Your task to perform on an android device: What is the speed of a tiger? Image 0: 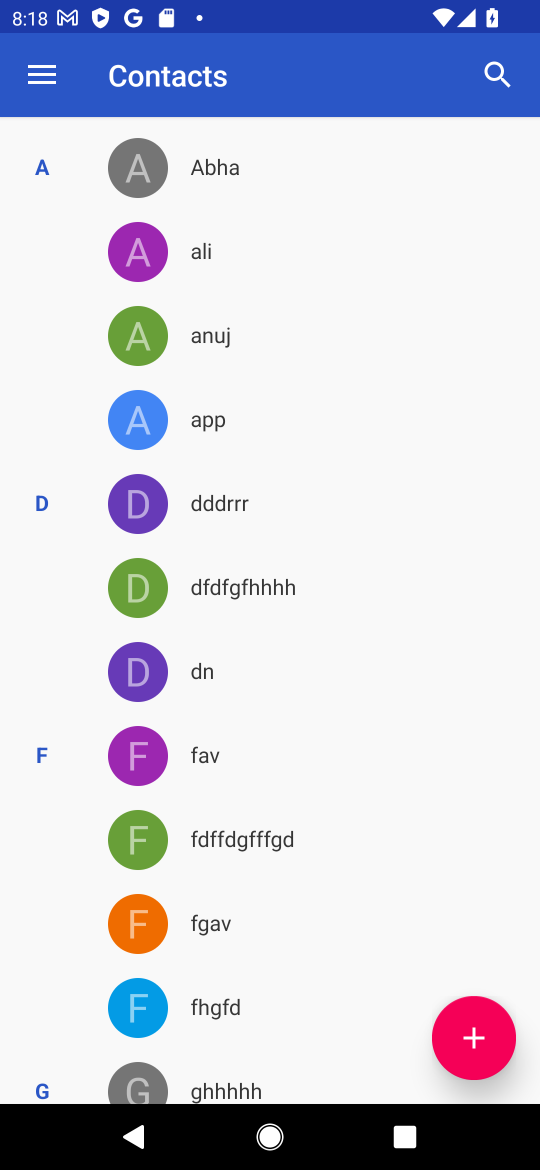
Step 0: press home button
Your task to perform on an android device: What is the speed of a tiger? Image 1: 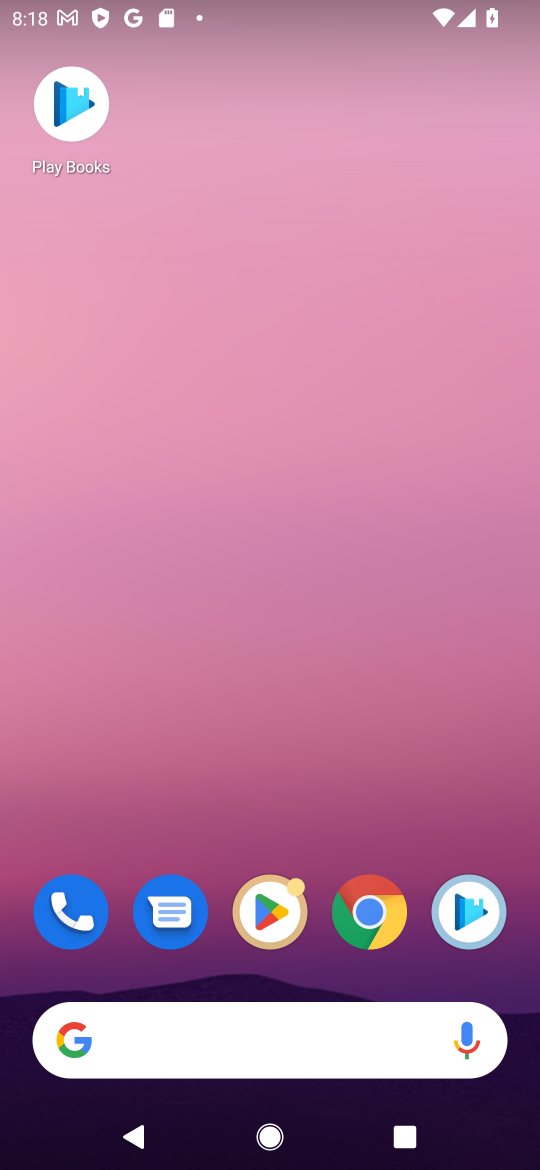
Step 1: click (363, 910)
Your task to perform on an android device: What is the speed of a tiger? Image 2: 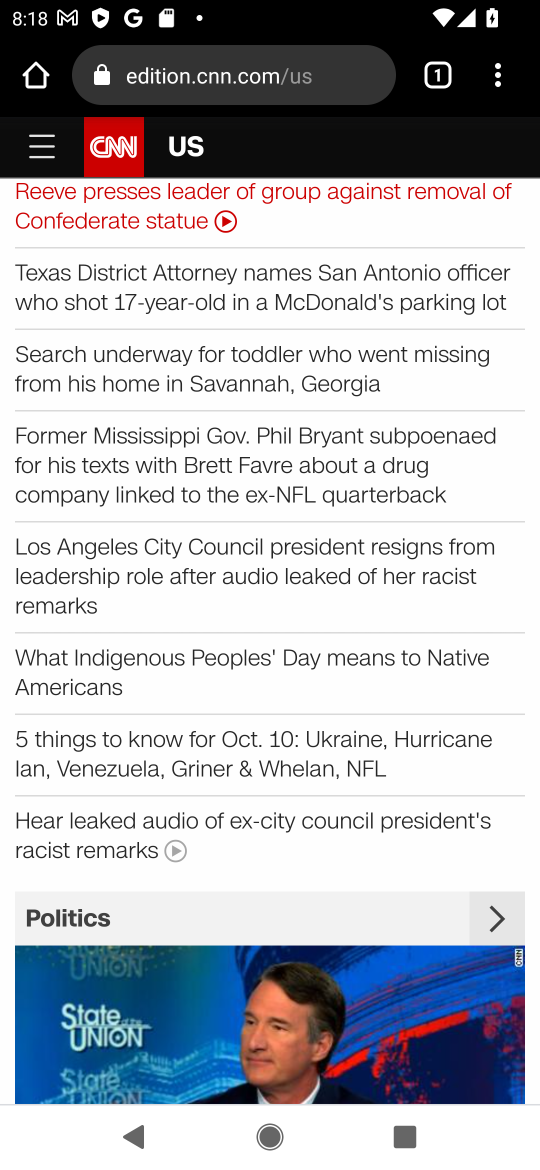
Step 2: click (287, 52)
Your task to perform on an android device: What is the speed of a tiger? Image 3: 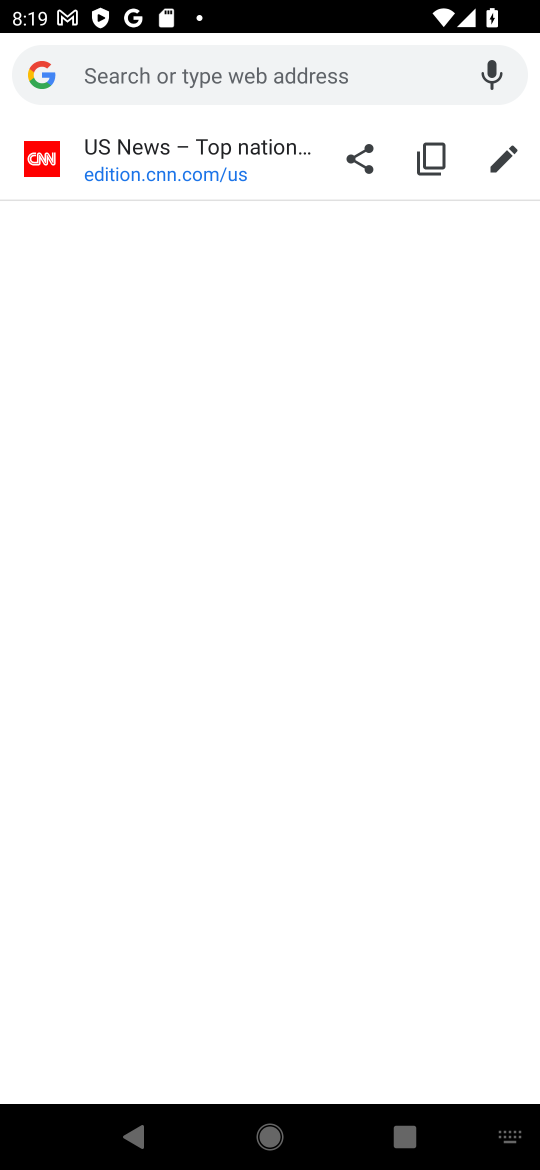
Step 3: type "speed of tiger?"
Your task to perform on an android device: What is the speed of a tiger? Image 4: 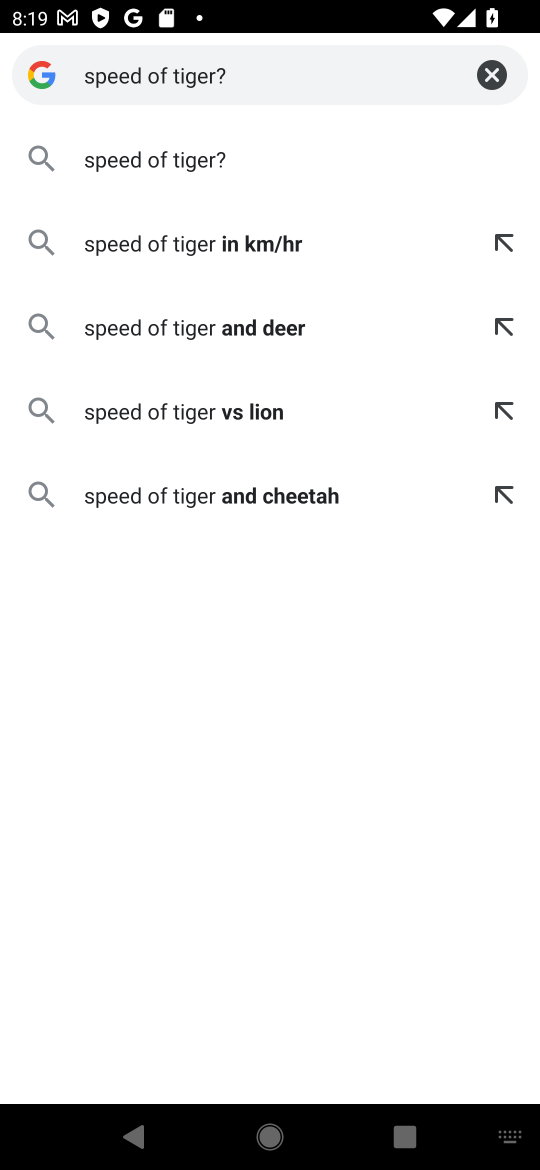
Step 4: click (165, 170)
Your task to perform on an android device: What is the speed of a tiger? Image 5: 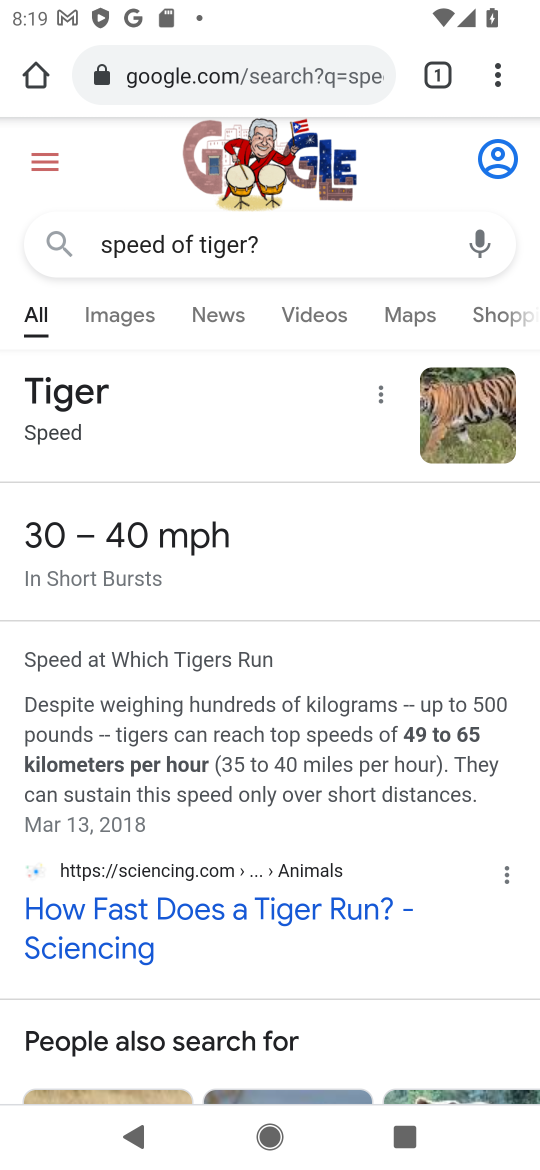
Step 5: task complete